Your task to perform on an android device: see tabs open on other devices in the chrome app Image 0: 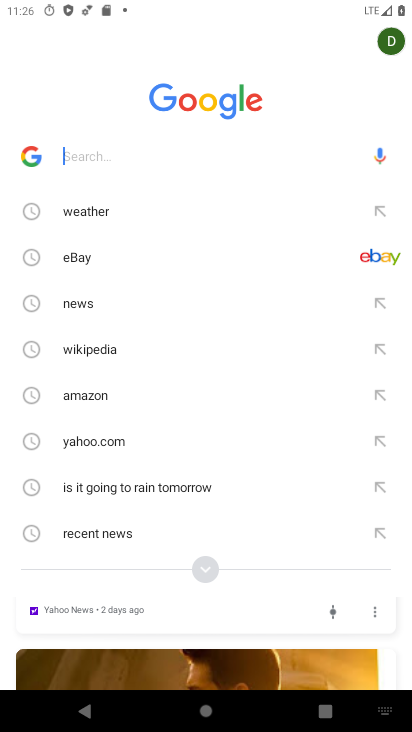
Step 0: press home button
Your task to perform on an android device: see tabs open on other devices in the chrome app Image 1: 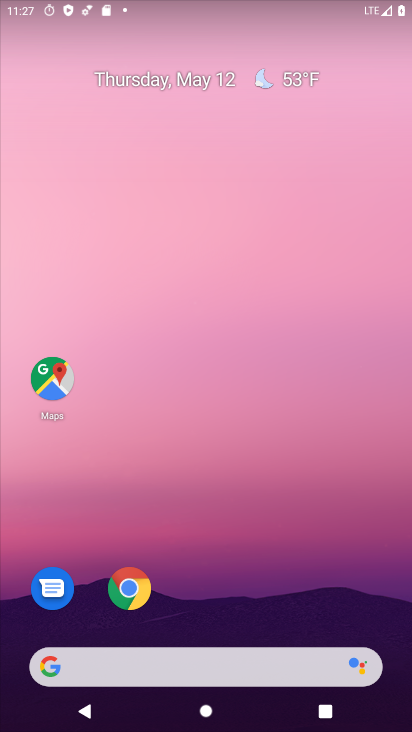
Step 1: click (136, 580)
Your task to perform on an android device: see tabs open on other devices in the chrome app Image 2: 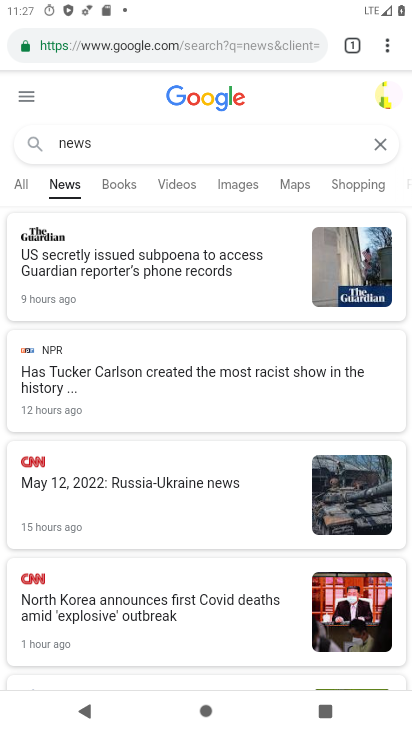
Step 2: task complete